Your task to perform on an android device: turn on data saver in the chrome app Image 0: 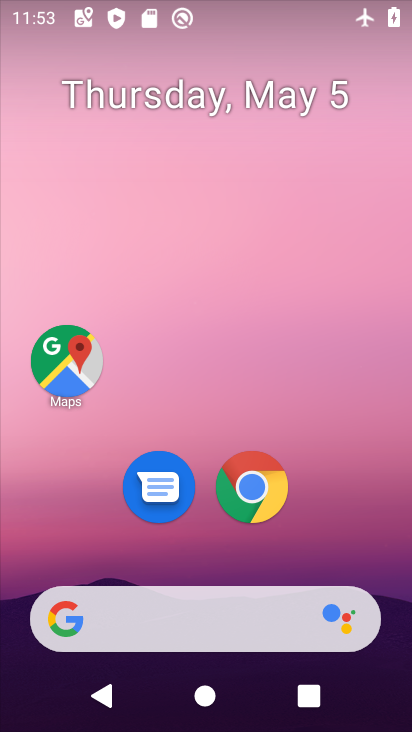
Step 0: drag from (287, 529) to (307, 48)
Your task to perform on an android device: turn on data saver in the chrome app Image 1: 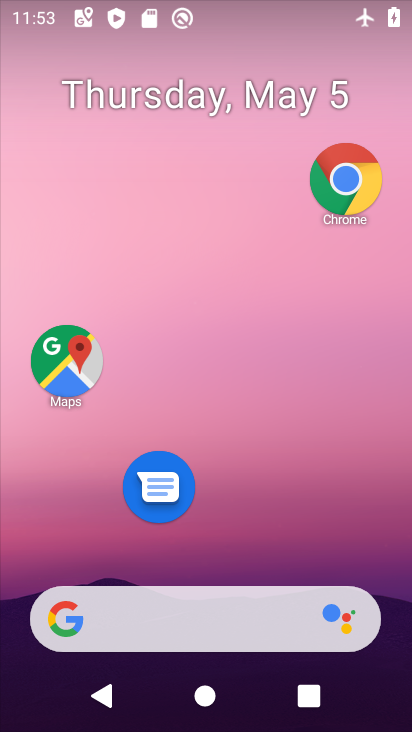
Step 1: click (343, 203)
Your task to perform on an android device: turn on data saver in the chrome app Image 2: 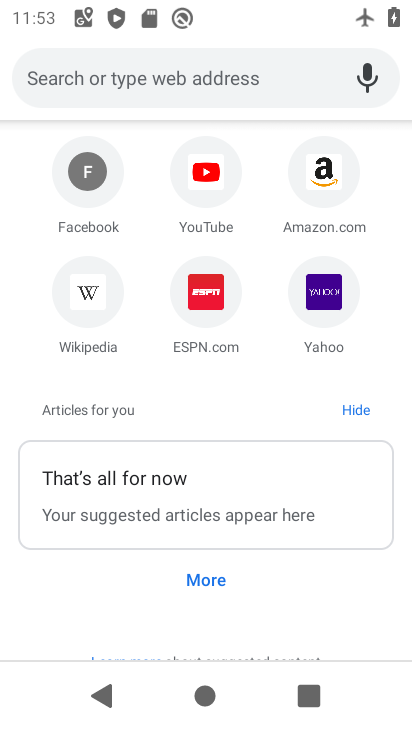
Step 2: drag from (384, 288) to (380, 707)
Your task to perform on an android device: turn on data saver in the chrome app Image 3: 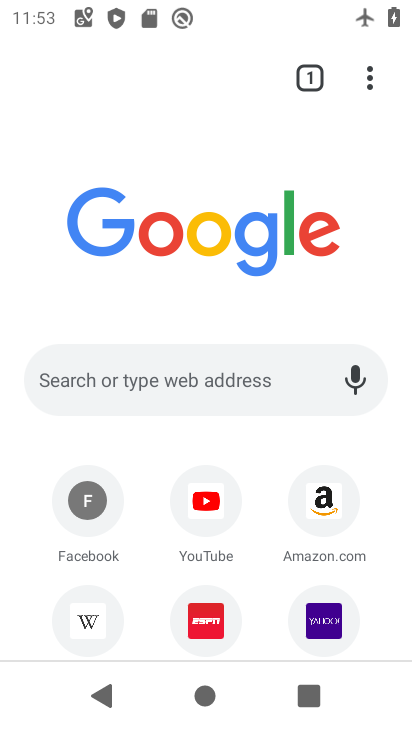
Step 3: click (372, 63)
Your task to perform on an android device: turn on data saver in the chrome app Image 4: 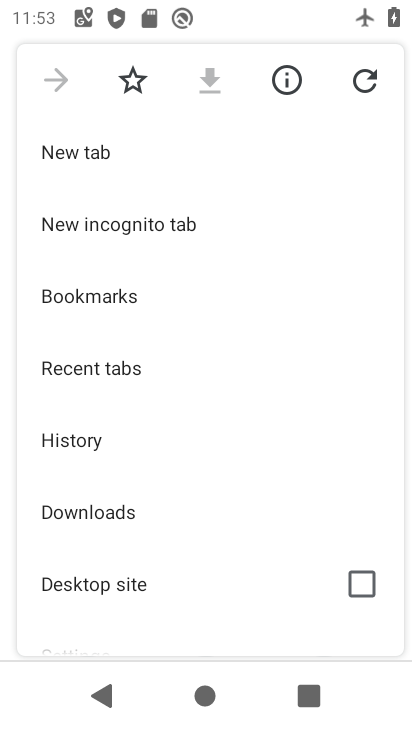
Step 4: drag from (161, 561) to (187, 336)
Your task to perform on an android device: turn on data saver in the chrome app Image 5: 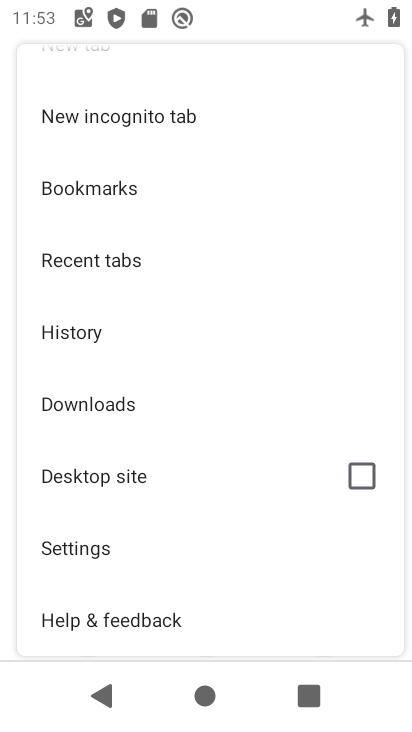
Step 5: click (113, 530)
Your task to perform on an android device: turn on data saver in the chrome app Image 6: 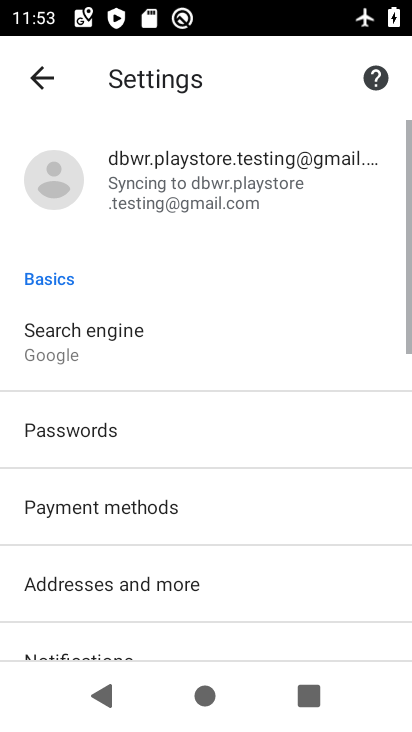
Step 6: drag from (189, 605) to (222, 205)
Your task to perform on an android device: turn on data saver in the chrome app Image 7: 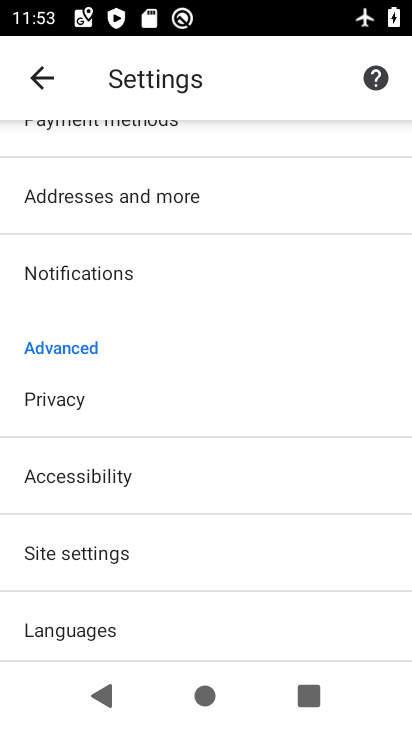
Step 7: drag from (123, 629) to (158, 331)
Your task to perform on an android device: turn on data saver in the chrome app Image 8: 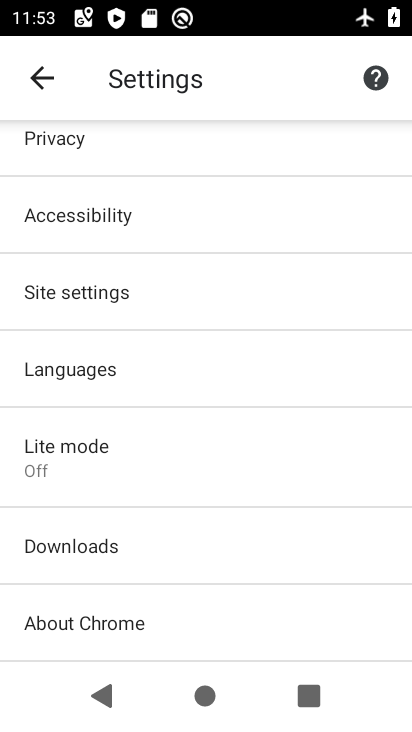
Step 8: click (143, 508)
Your task to perform on an android device: turn on data saver in the chrome app Image 9: 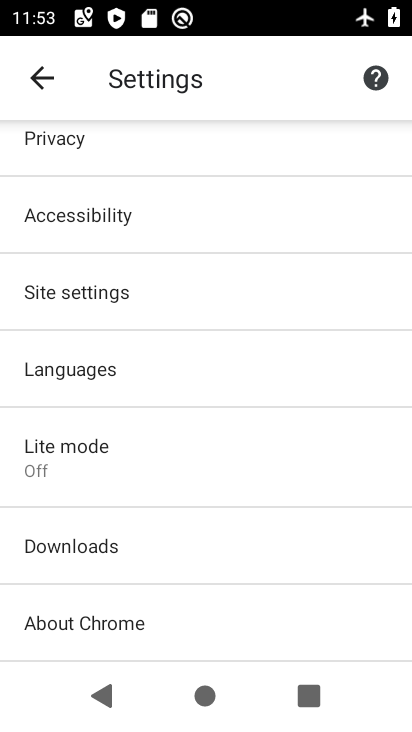
Step 9: click (154, 494)
Your task to perform on an android device: turn on data saver in the chrome app Image 10: 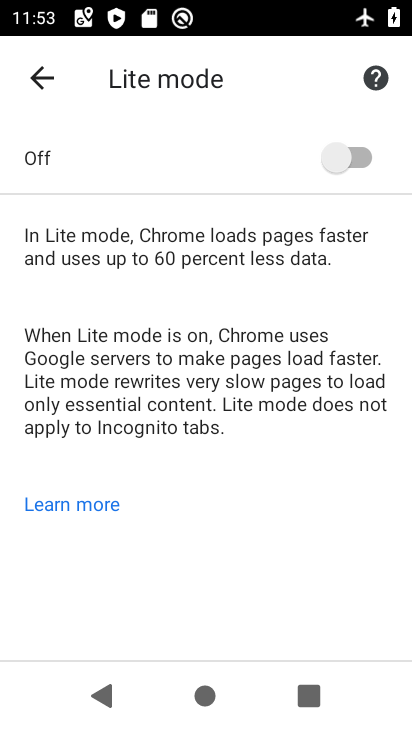
Step 10: click (348, 177)
Your task to perform on an android device: turn on data saver in the chrome app Image 11: 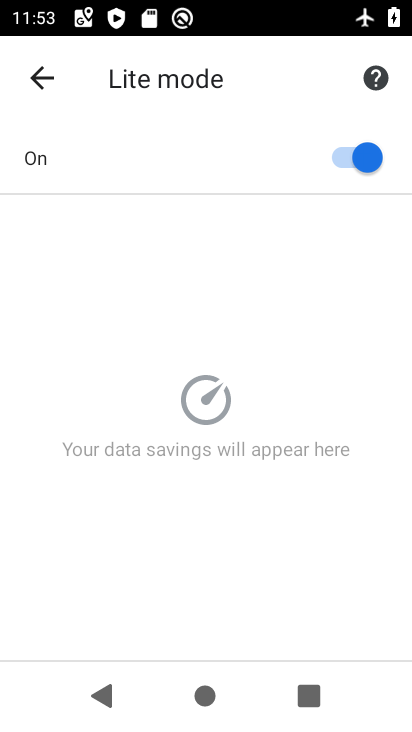
Step 11: task complete